Your task to perform on an android device: Open accessibility settings Image 0: 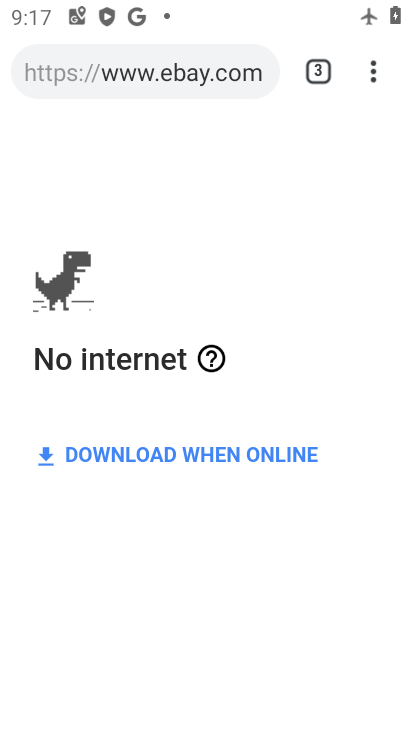
Step 0: press home button
Your task to perform on an android device: Open accessibility settings Image 1: 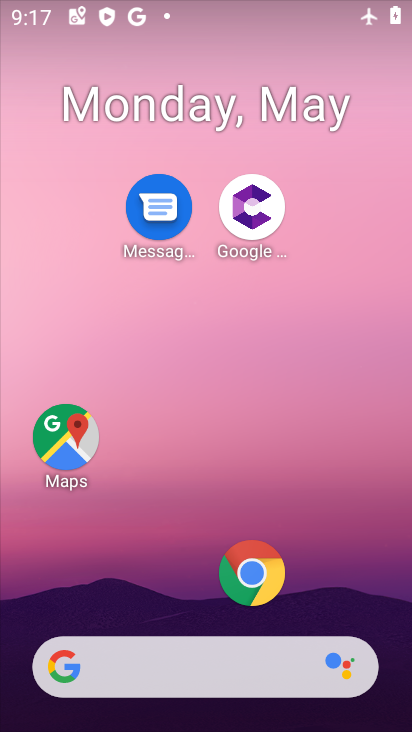
Step 1: drag from (199, 541) to (186, 59)
Your task to perform on an android device: Open accessibility settings Image 2: 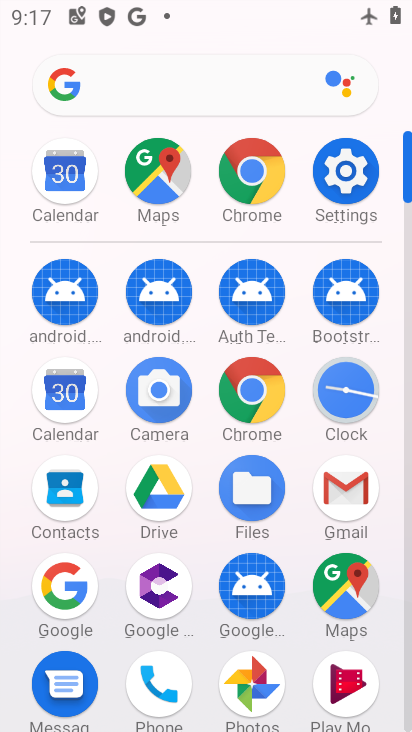
Step 2: click (350, 193)
Your task to perform on an android device: Open accessibility settings Image 3: 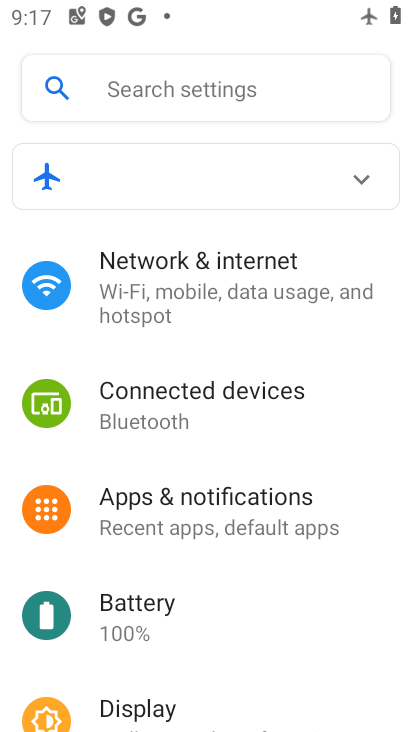
Step 3: drag from (152, 617) to (181, 265)
Your task to perform on an android device: Open accessibility settings Image 4: 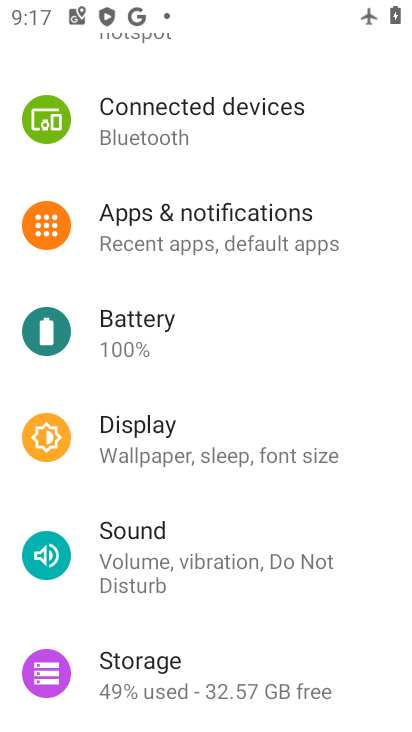
Step 4: drag from (190, 580) to (203, 247)
Your task to perform on an android device: Open accessibility settings Image 5: 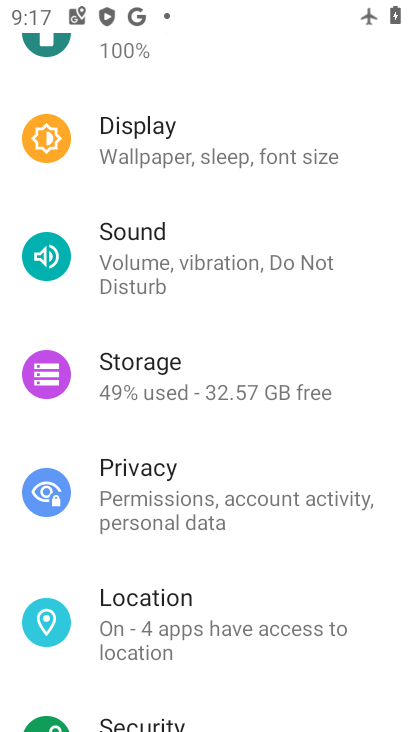
Step 5: drag from (157, 584) to (229, 226)
Your task to perform on an android device: Open accessibility settings Image 6: 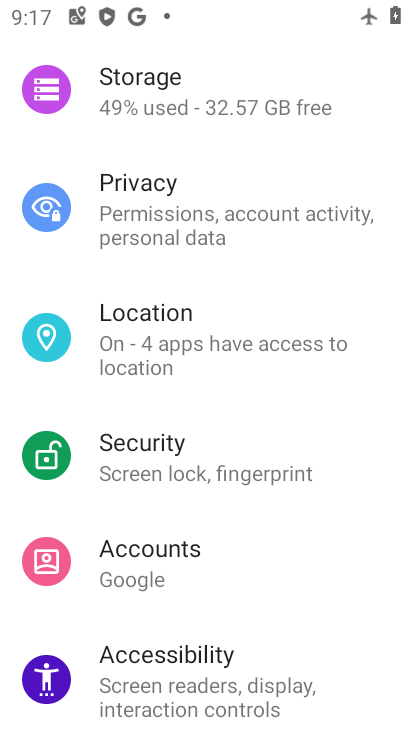
Step 6: click (199, 656)
Your task to perform on an android device: Open accessibility settings Image 7: 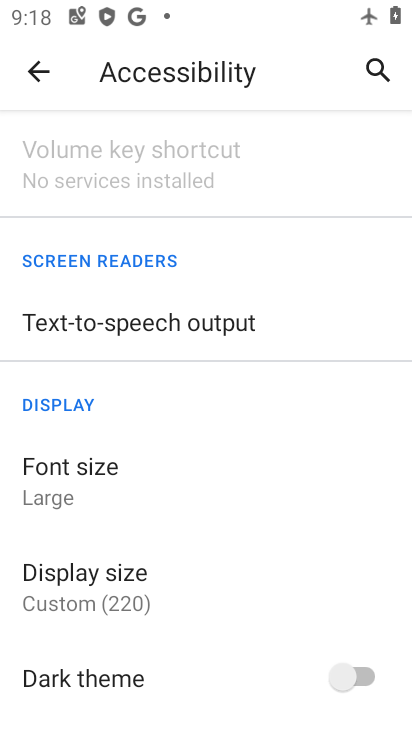
Step 7: task complete